Your task to perform on an android device: Search for "usb-b" on ebay, select the first entry, add it to the cart, then select checkout. Image 0: 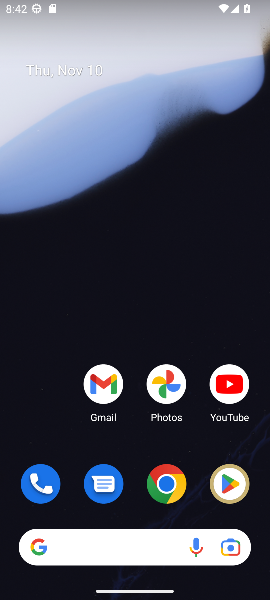
Step 0: click (172, 482)
Your task to perform on an android device: Search for "usb-b" on ebay, select the first entry, add it to the cart, then select checkout. Image 1: 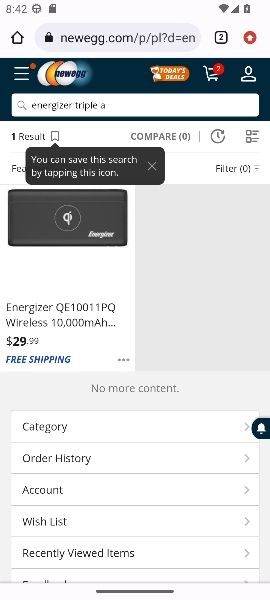
Step 1: click (105, 38)
Your task to perform on an android device: Search for "usb-b" on ebay, select the first entry, add it to the cart, then select checkout. Image 2: 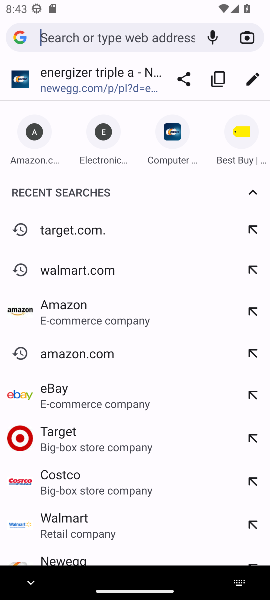
Step 2: type "ebay.com"
Your task to perform on an android device: Search for "usb-b" on ebay, select the first entry, add it to the cart, then select checkout. Image 3: 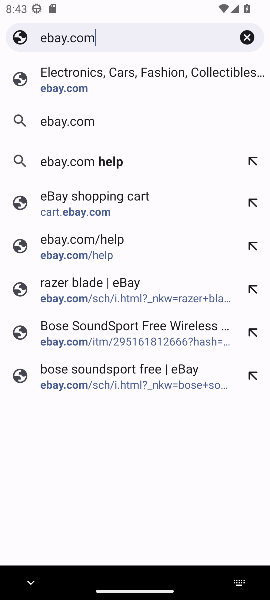
Step 3: click (58, 93)
Your task to perform on an android device: Search for "usb-b" on ebay, select the first entry, add it to the cart, then select checkout. Image 4: 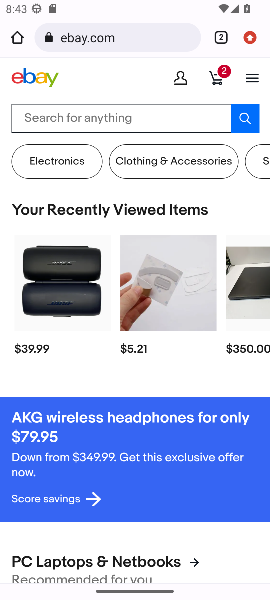
Step 4: click (58, 111)
Your task to perform on an android device: Search for "usb-b" on ebay, select the first entry, add it to the cart, then select checkout. Image 5: 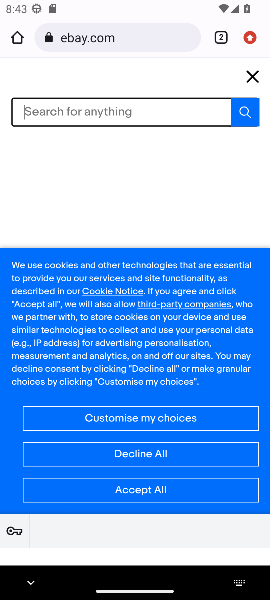
Step 5: type "usb-b"
Your task to perform on an android device: Search for "usb-b" on ebay, select the first entry, add it to the cart, then select checkout. Image 6: 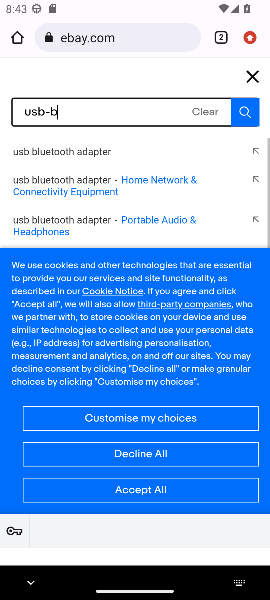
Step 6: click (240, 113)
Your task to perform on an android device: Search for "usb-b" on ebay, select the first entry, add it to the cart, then select checkout. Image 7: 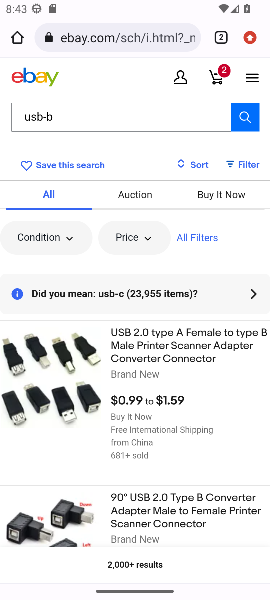
Step 7: click (64, 406)
Your task to perform on an android device: Search for "usb-b" on ebay, select the first entry, add it to the cart, then select checkout. Image 8: 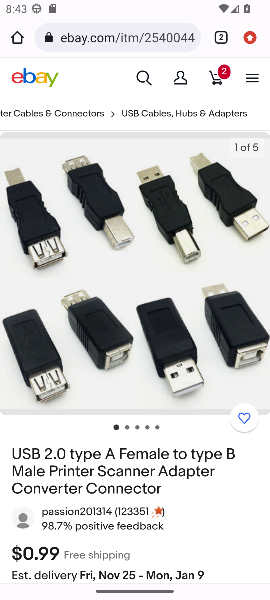
Step 8: drag from (135, 469) to (112, 183)
Your task to perform on an android device: Search for "usb-b" on ebay, select the first entry, add it to the cart, then select checkout. Image 9: 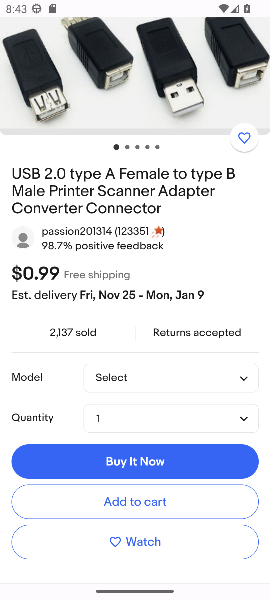
Step 9: click (133, 499)
Your task to perform on an android device: Search for "usb-b" on ebay, select the first entry, add it to the cart, then select checkout. Image 10: 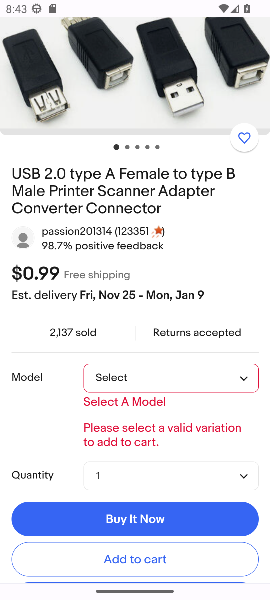
Step 10: click (238, 379)
Your task to perform on an android device: Search for "usb-b" on ebay, select the first entry, add it to the cart, then select checkout. Image 11: 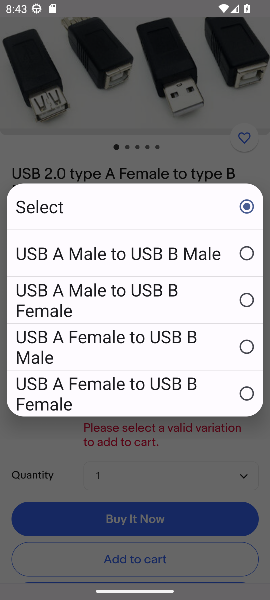
Step 11: click (38, 259)
Your task to perform on an android device: Search for "usb-b" on ebay, select the first entry, add it to the cart, then select checkout. Image 12: 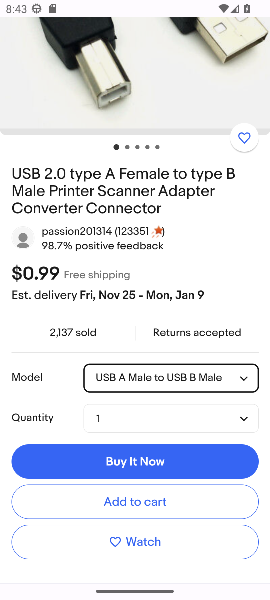
Step 12: click (139, 501)
Your task to perform on an android device: Search for "usb-b" on ebay, select the first entry, add it to the cart, then select checkout. Image 13: 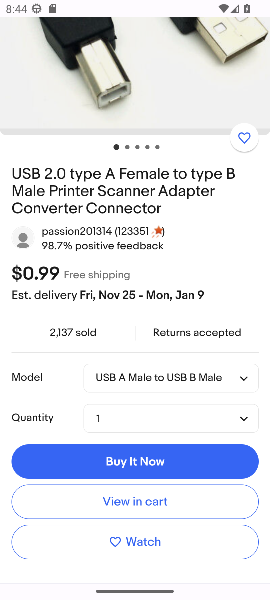
Step 13: click (146, 506)
Your task to perform on an android device: Search for "usb-b" on ebay, select the first entry, add it to the cart, then select checkout. Image 14: 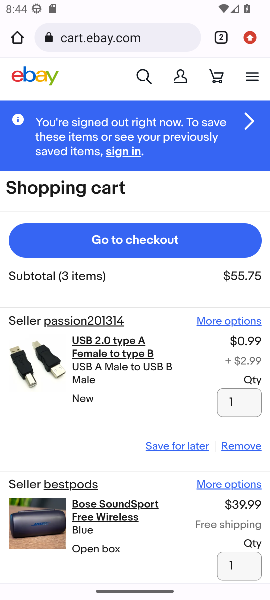
Step 14: click (147, 235)
Your task to perform on an android device: Search for "usb-b" on ebay, select the first entry, add it to the cart, then select checkout. Image 15: 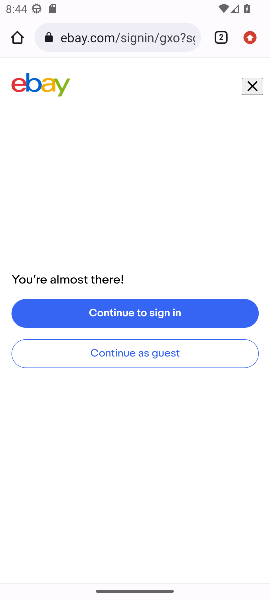
Step 15: task complete